Your task to perform on an android device: Open calendar and show me the fourth week of next month Image 0: 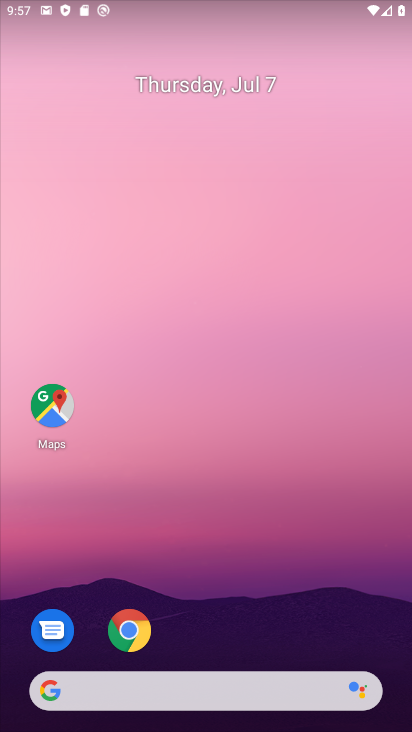
Step 0: drag from (16, 704) to (231, 187)
Your task to perform on an android device: Open calendar and show me the fourth week of next month Image 1: 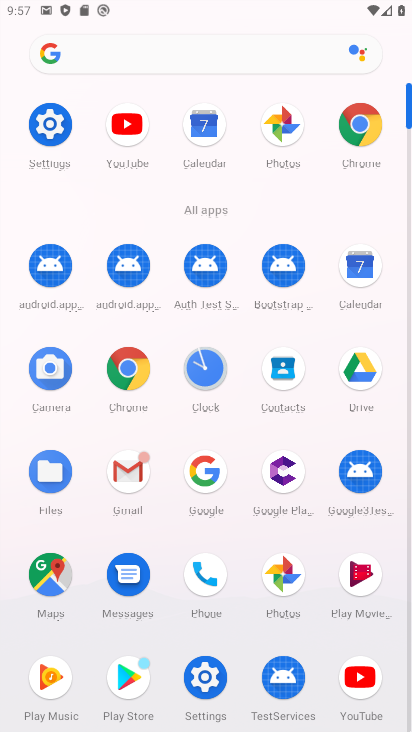
Step 1: click (359, 275)
Your task to perform on an android device: Open calendar and show me the fourth week of next month Image 2: 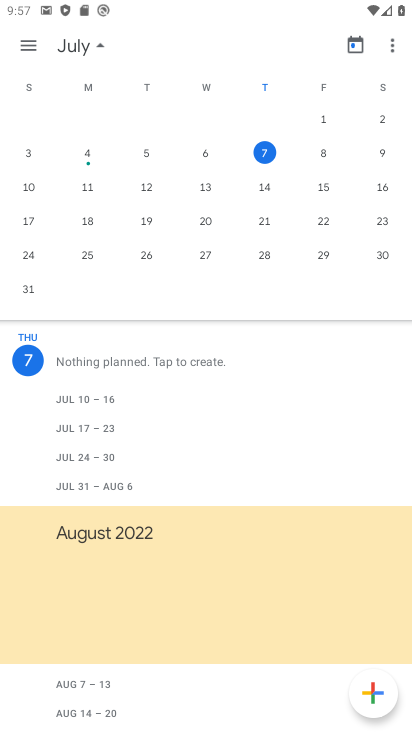
Step 2: drag from (324, 190) to (17, 298)
Your task to perform on an android device: Open calendar and show me the fourth week of next month Image 3: 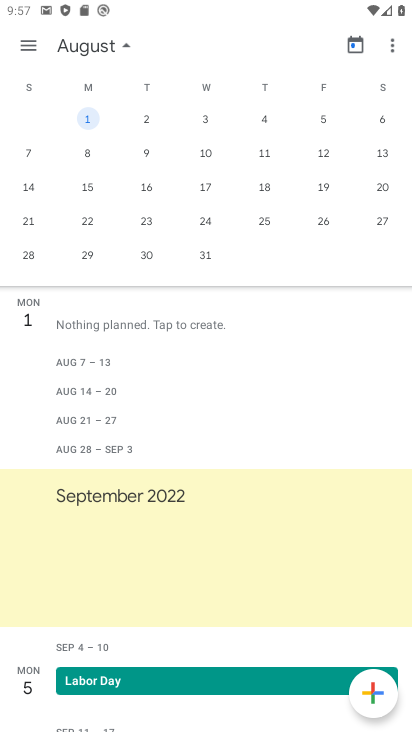
Step 3: click (79, 224)
Your task to perform on an android device: Open calendar and show me the fourth week of next month Image 4: 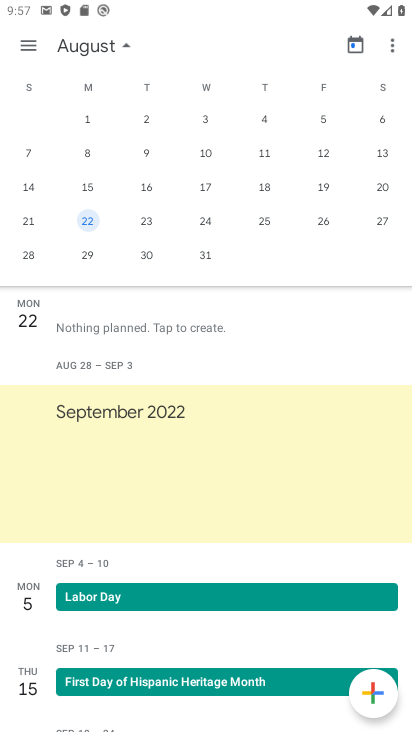
Step 4: task complete